Your task to perform on an android device: visit the assistant section in the google photos Image 0: 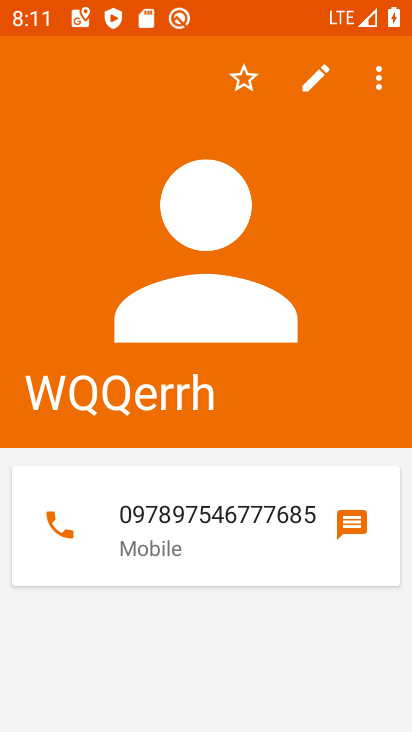
Step 0: press home button
Your task to perform on an android device: visit the assistant section in the google photos Image 1: 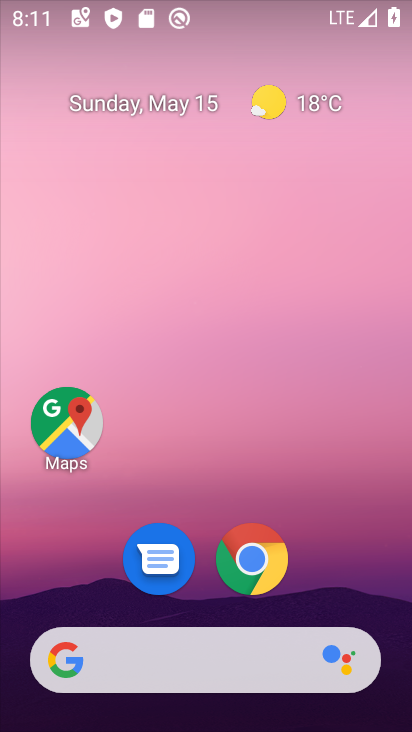
Step 1: drag from (304, 486) to (210, 102)
Your task to perform on an android device: visit the assistant section in the google photos Image 2: 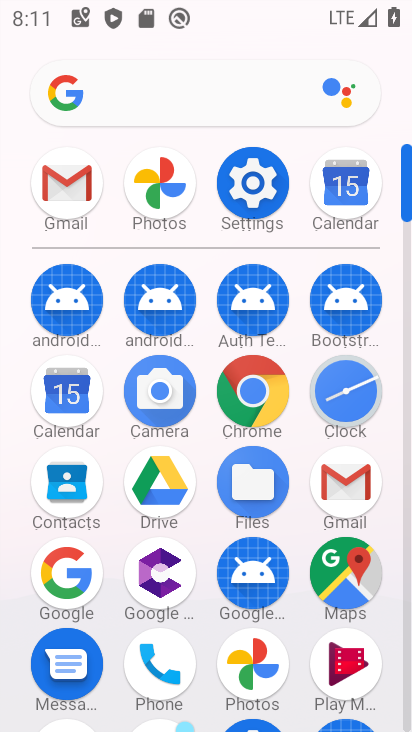
Step 2: click (150, 180)
Your task to perform on an android device: visit the assistant section in the google photos Image 3: 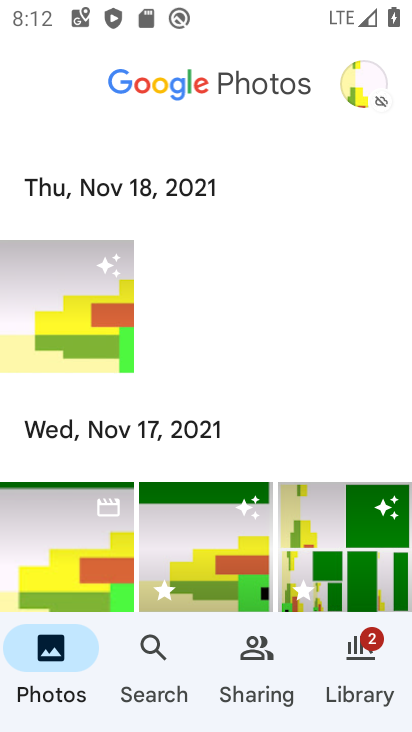
Step 3: click (148, 644)
Your task to perform on an android device: visit the assistant section in the google photos Image 4: 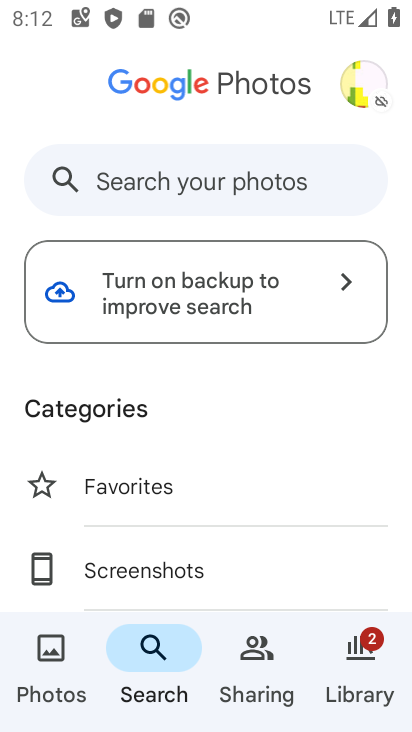
Step 4: click (128, 180)
Your task to perform on an android device: visit the assistant section in the google photos Image 5: 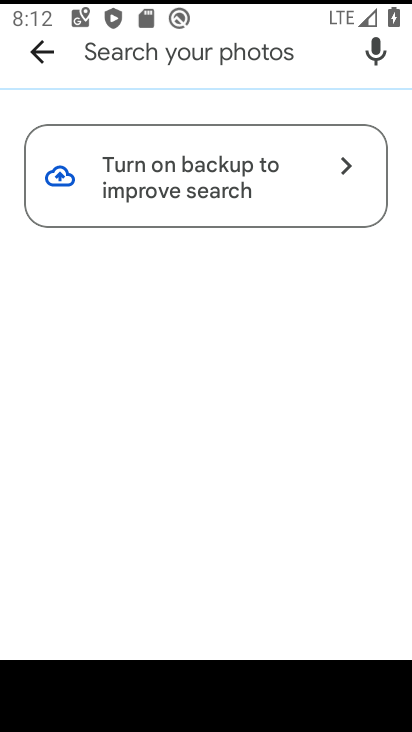
Step 5: type "assistant section"
Your task to perform on an android device: visit the assistant section in the google photos Image 6: 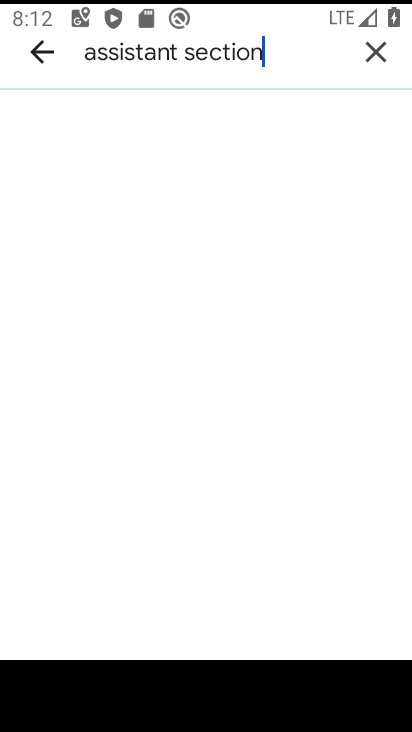
Step 6: task complete